Your task to perform on an android device: toggle show notifications on the lock screen Image 0: 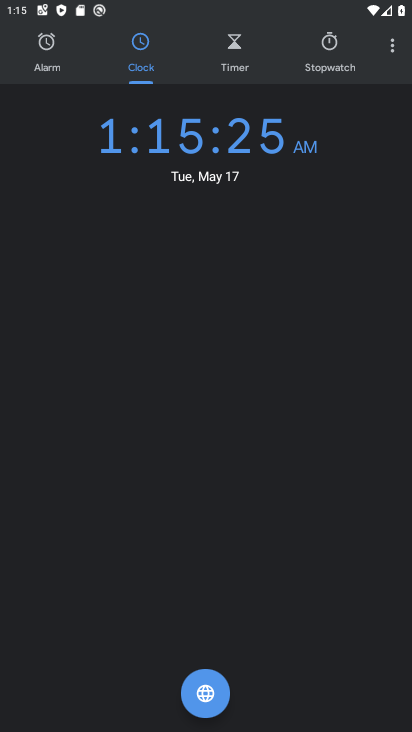
Step 0: press home button
Your task to perform on an android device: toggle show notifications on the lock screen Image 1: 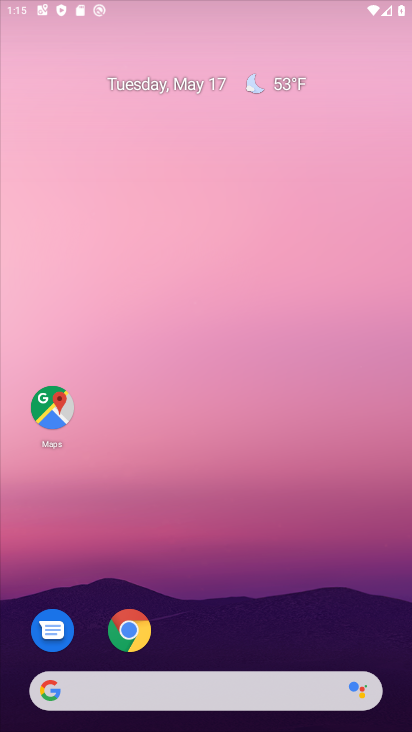
Step 1: drag from (229, 611) to (245, 442)
Your task to perform on an android device: toggle show notifications on the lock screen Image 2: 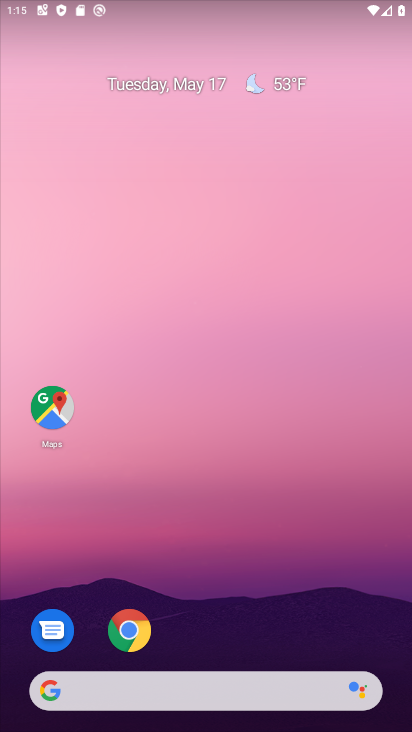
Step 2: drag from (190, 662) to (196, 464)
Your task to perform on an android device: toggle show notifications on the lock screen Image 3: 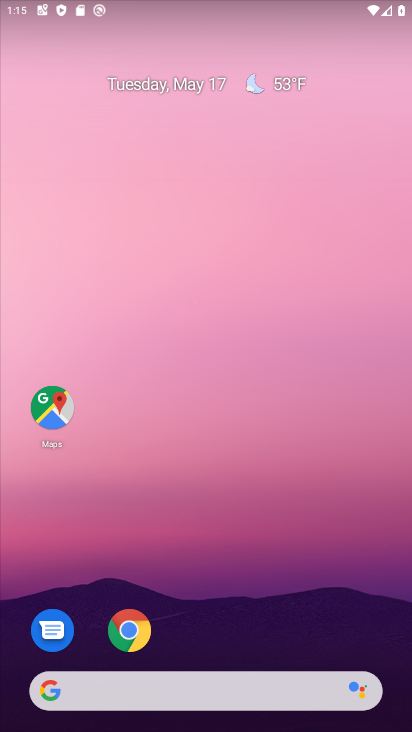
Step 3: drag from (183, 670) to (208, 172)
Your task to perform on an android device: toggle show notifications on the lock screen Image 4: 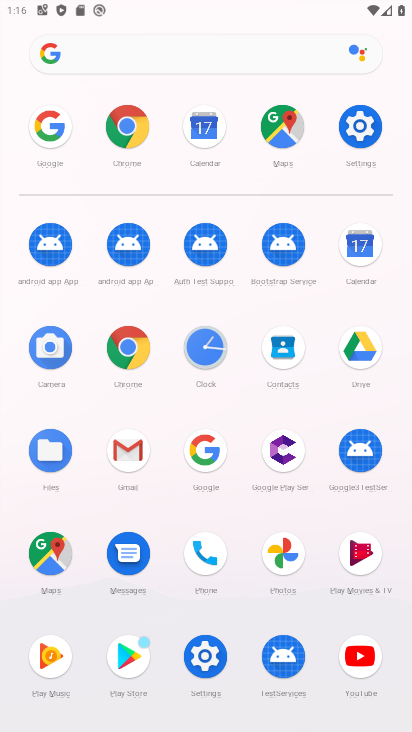
Step 4: click (353, 159)
Your task to perform on an android device: toggle show notifications on the lock screen Image 5: 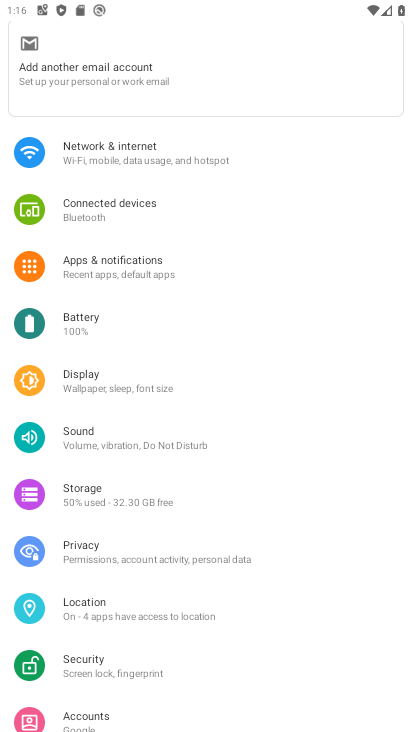
Step 5: click (116, 272)
Your task to perform on an android device: toggle show notifications on the lock screen Image 6: 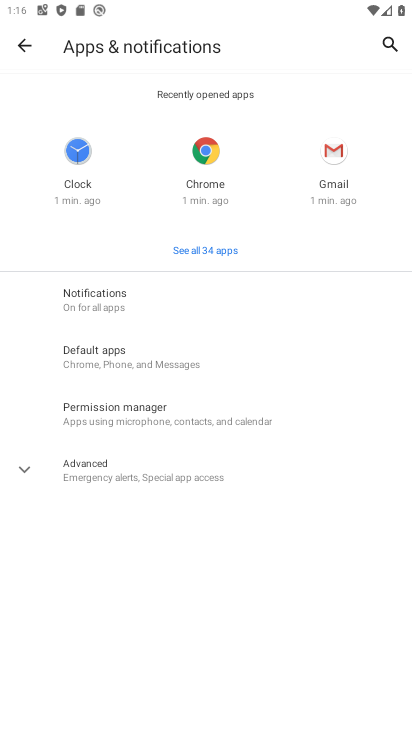
Step 6: click (134, 298)
Your task to perform on an android device: toggle show notifications on the lock screen Image 7: 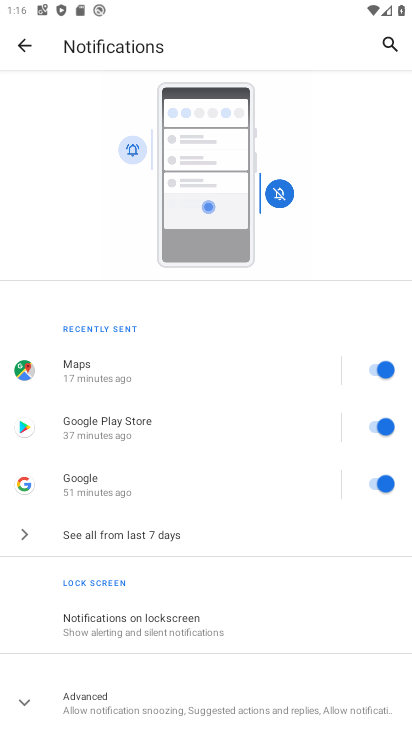
Step 7: click (142, 628)
Your task to perform on an android device: toggle show notifications on the lock screen Image 8: 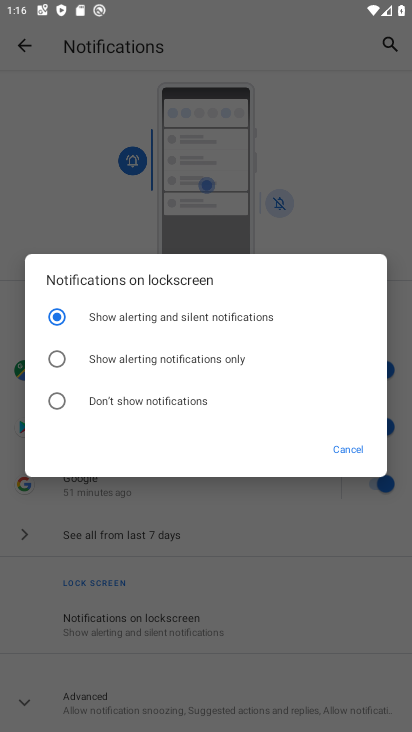
Step 8: click (63, 402)
Your task to perform on an android device: toggle show notifications on the lock screen Image 9: 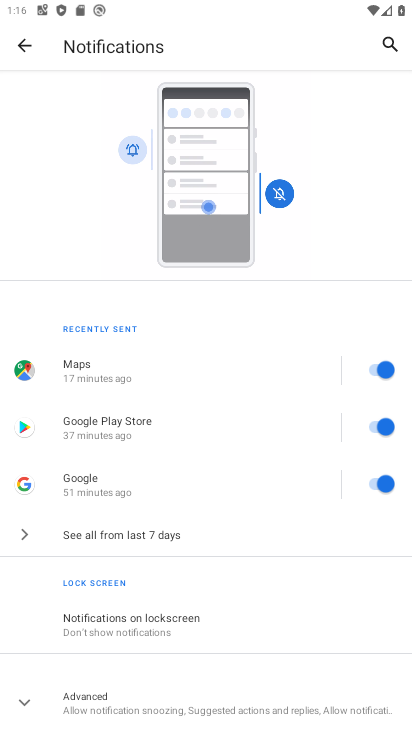
Step 9: task complete